Your task to perform on an android device: stop showing notifications on the lock screen Image 0: 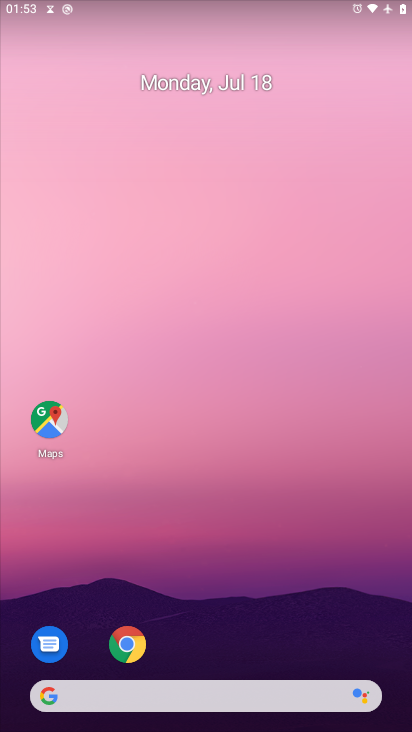
Step 0: press home button
Your task to perform on an android device: stop showing notifications on the lock screen Image 1: 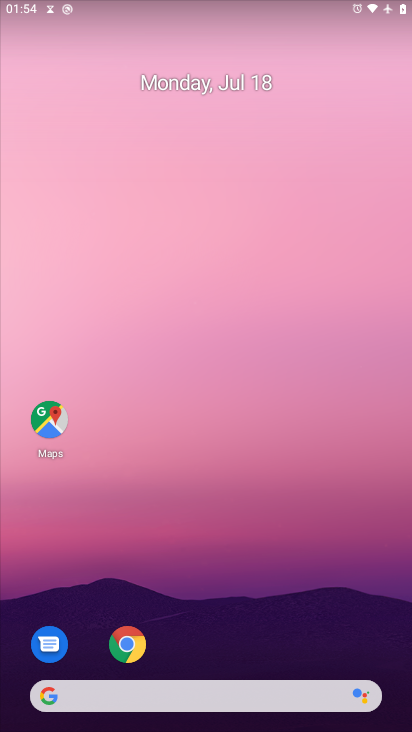
Step 1: drag from (223, 644) to (216, 192)
Your task to perform on an android device: stop showing notifications on the lock screen Image 2: 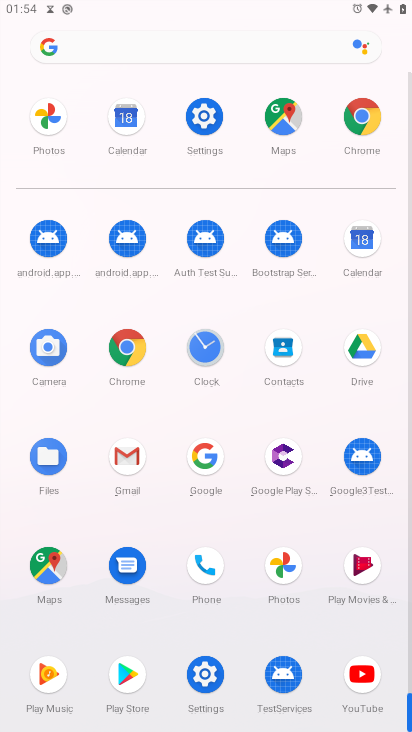
Step 2: click (204, 113)
Your task to perform on an android device: stop showing notifications on the lock screen Image 3: 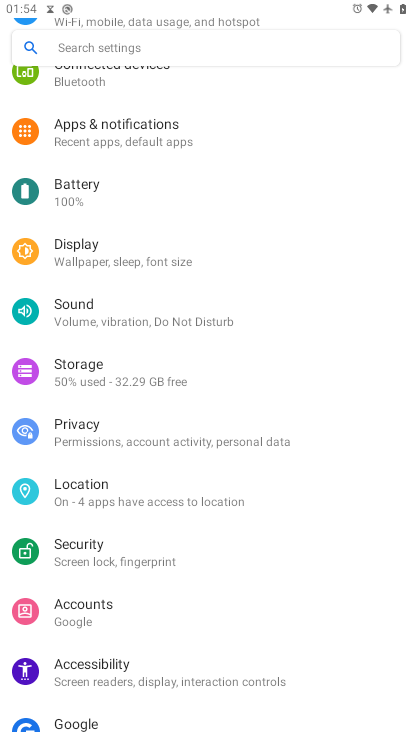
Step 3: click (129, 133)
Your task to perform on an android device: stop showing notifications on the lock screen Image 4: 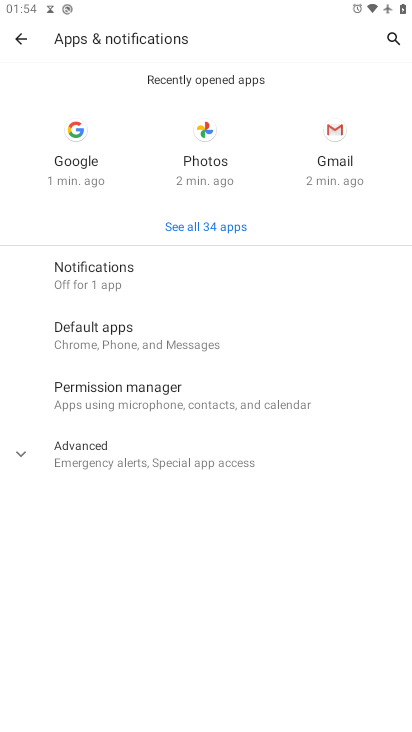
Step 4: click (92, 275)
Your task to perform on an android device: stop showing notifications on the lock screen Image 5: 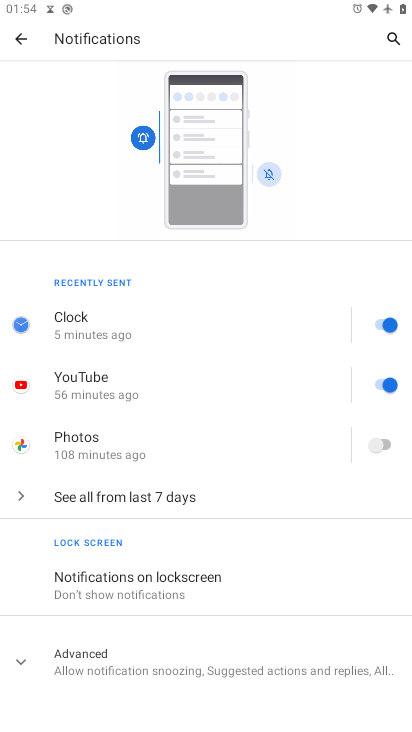
Step 5: click (128, 587)
Your task to perform on an android device: stop showing notifications on the lock screen Image 6: 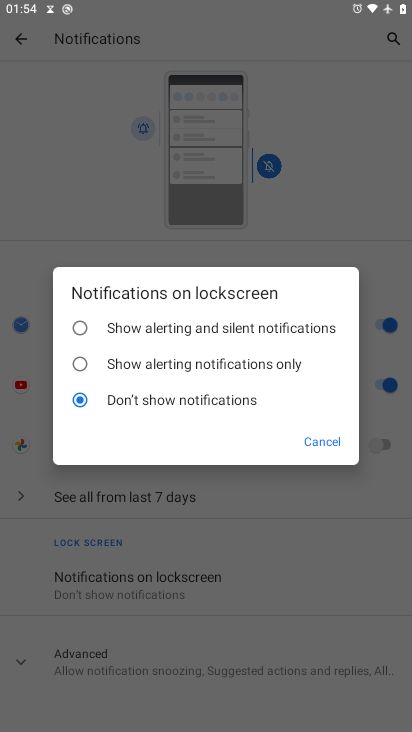
Step 6: task complete